Your task to perform on an android device: Open location settings Image 0: 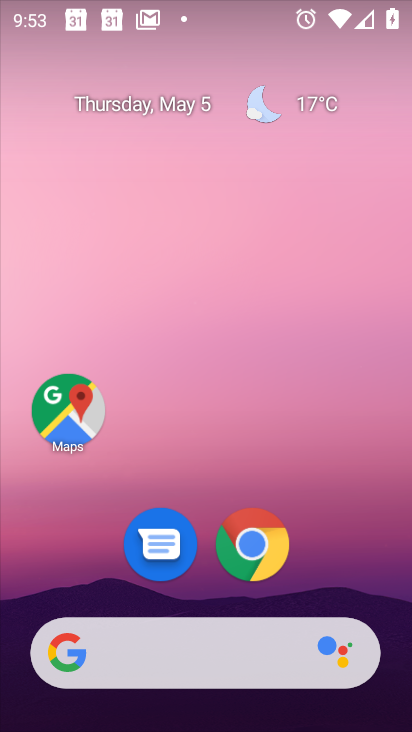
Step 0: drag from (374, 551) to (349, 264)
Your task to perform on an android device: Open location settings Image 1: 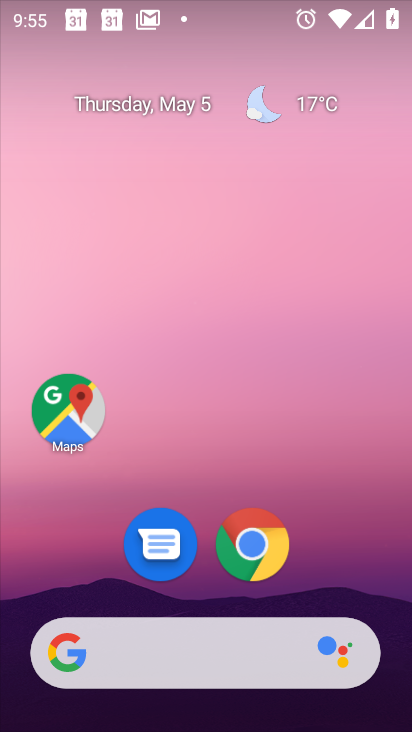
Step 1: drag from (379, 600) to (304, 130)
Your task to perform on an android device: Open location settings Image 2: 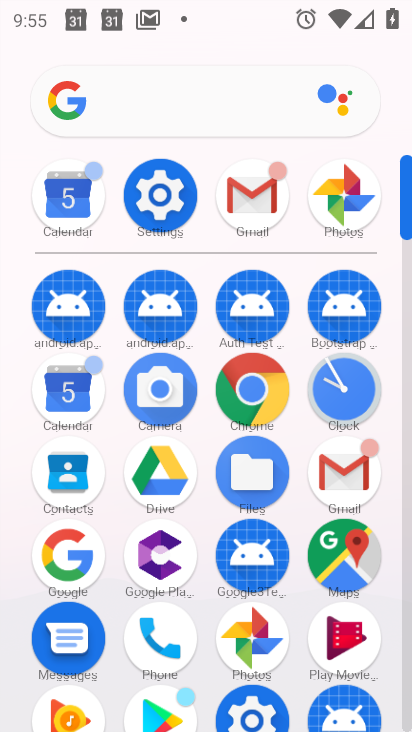
Step 2: click (161, 209)
Your task to perform on an android device: Open location settings Image 3: 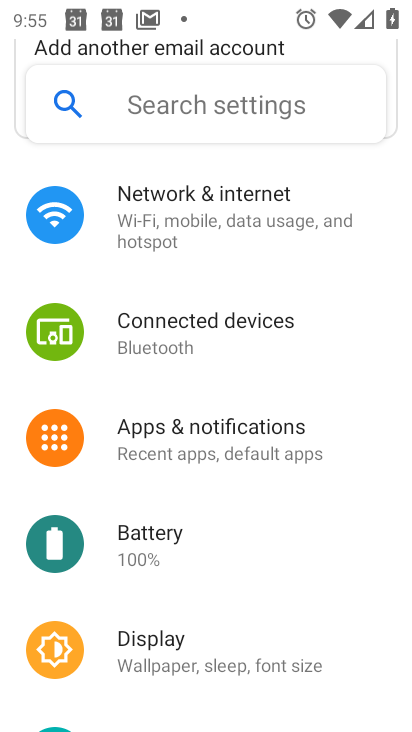
Step 3: drag from (230, 434) to (261, 217)
Your task to perform on an android device: Open location settings Image 4: 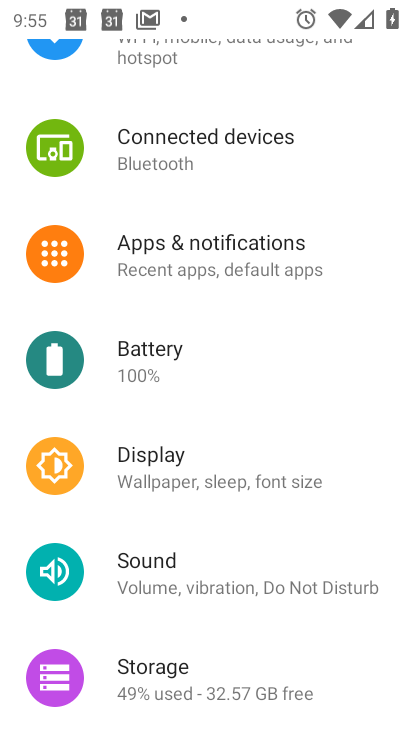
Step 4: drag from (189, 673) to (194, 515)
Your task to perform on an android device: Open location settings Image 5: 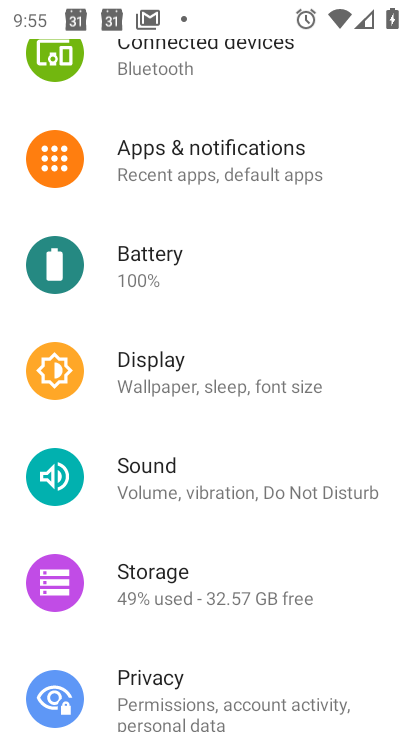
Step 5: drag from (239, 650) to (225, 230)
Your task to perform on an android device: Open location settings Image 6: 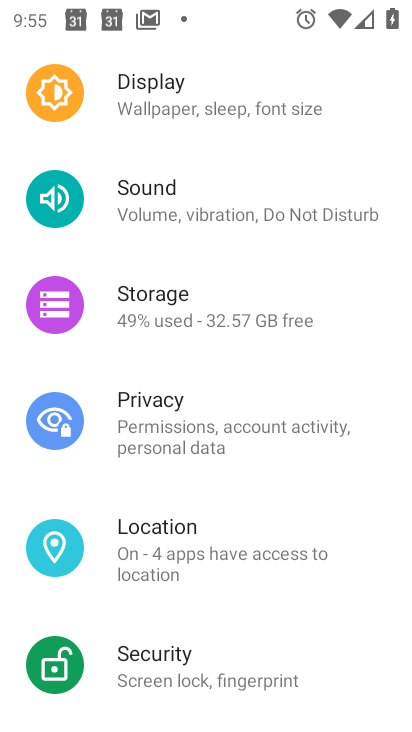
Step 6: click (205, 571)
Your task to perform on an android device: Open location settings Image 7: 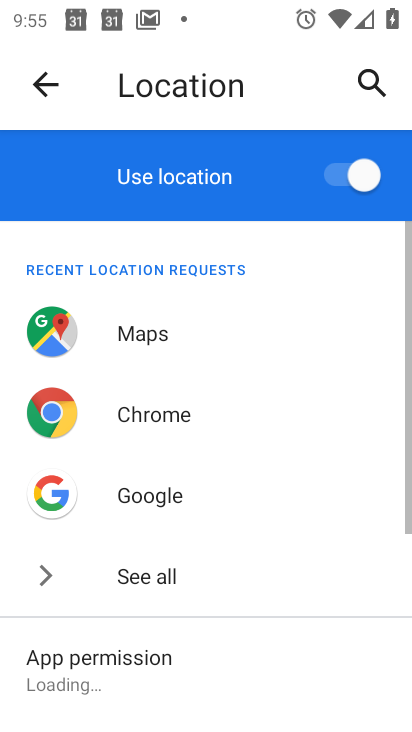
Step 7: task complete